Your task to perform on an android device: Search for Mexican restaurants on Maps Image 0: 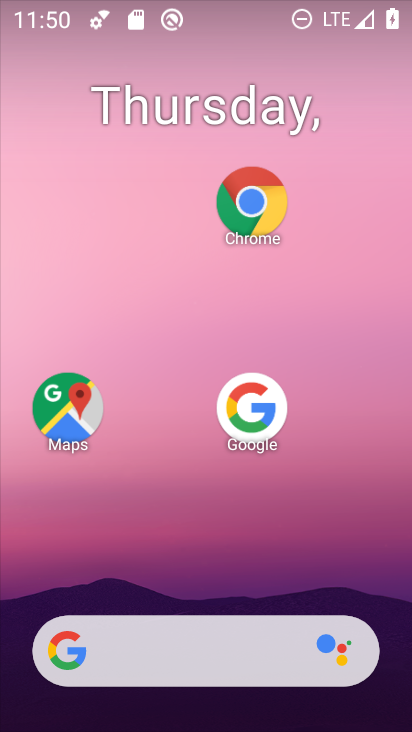
Step 0: drag from (187, 614) to (185, 12)
Your task to perform on an android device: Search for Mexican restaurants on Maps Image 1: 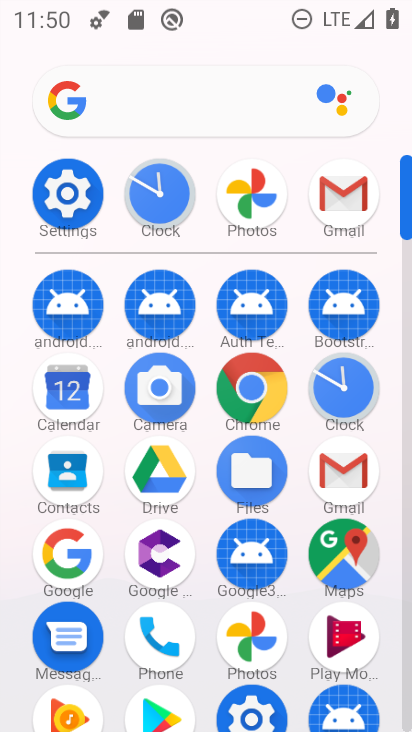
Step 1: click (344, 539)
Your task to perform on an android device: Search for Mexican restaurants on Maps Image 2: 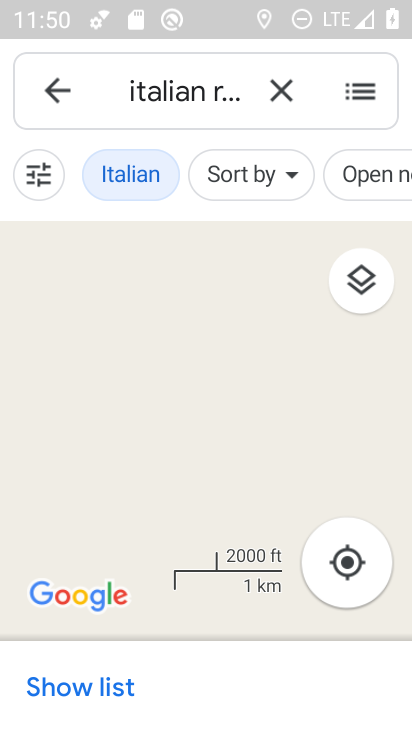
Step 2: click (275, 86)
Your task to perform on an android device: Search for Mexican restaurants on Maps Image 3: 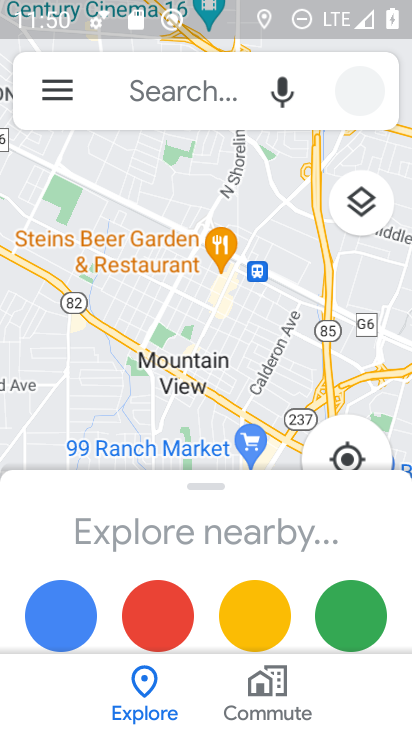
Step 3: click (202, 108)
Your task to perform on an android device: Search for Mexican restaurants on Maps Image 4: 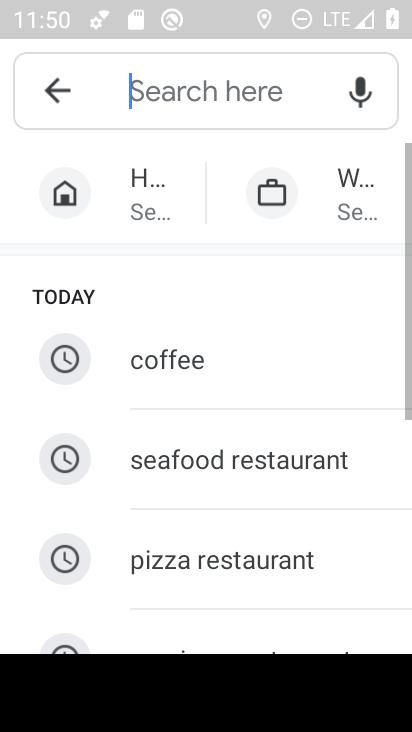
Step 4: drag from (238, 558) to (225, 115)
Your task to perform on an android device: Search for Mexican restaurants on Maps Image 5: 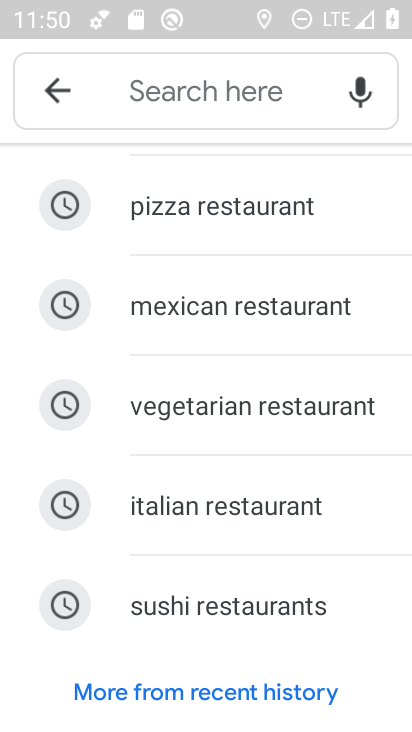
Step 5: click (194, 326)
Your task to perform on an android device: Search for Mexican restaurants on Maps Image 6: 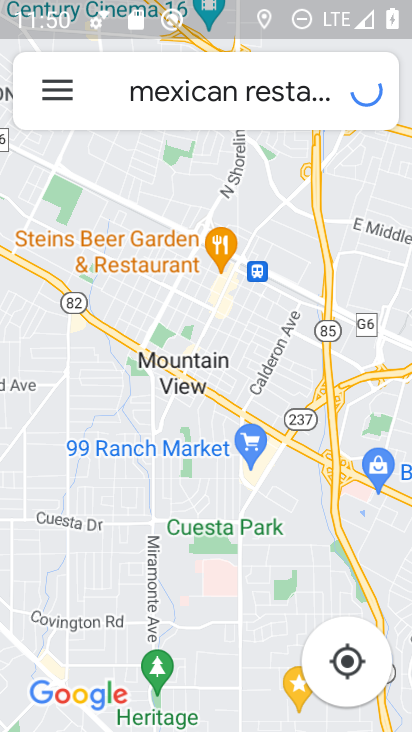
Step 6: task complete